Your task to perform on an android device: check the backup settings in the google photos Image 0: 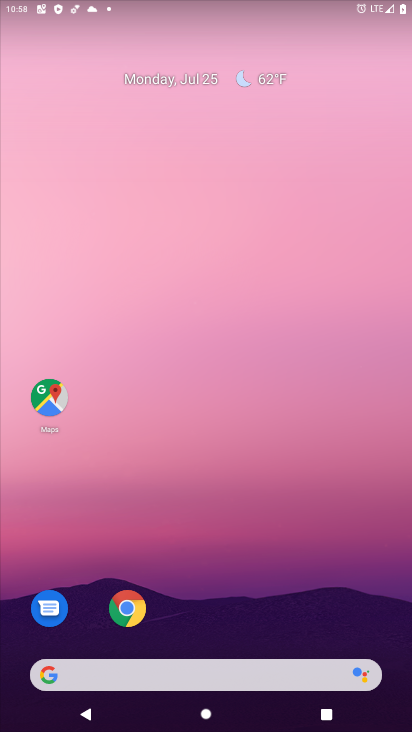
Step 0: click (222, 32)
Your task to perform on an android device: check the backup settings in the google photos Image 1: 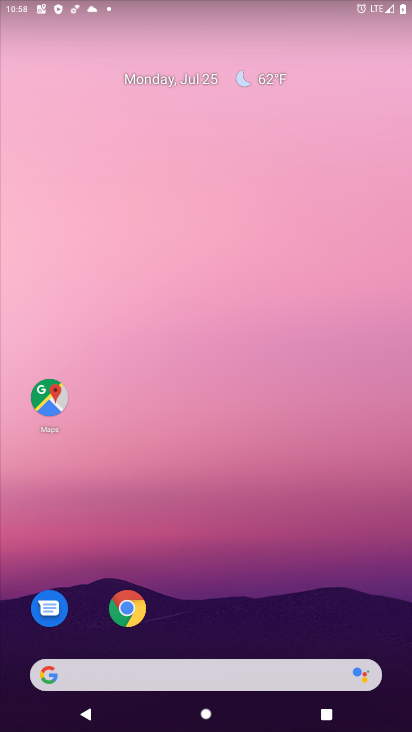
Step 1: drag from (232, 603) to (63, 14)
Your task to perform on an android device: check the backup settings in the google photos Image 2: 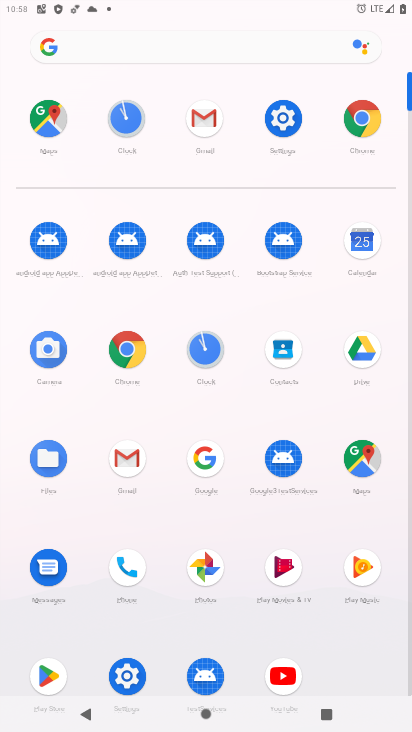
Step 2: click (202, 579)
Your task to perform on an android device: check the backup settings in the google photos Image 3: 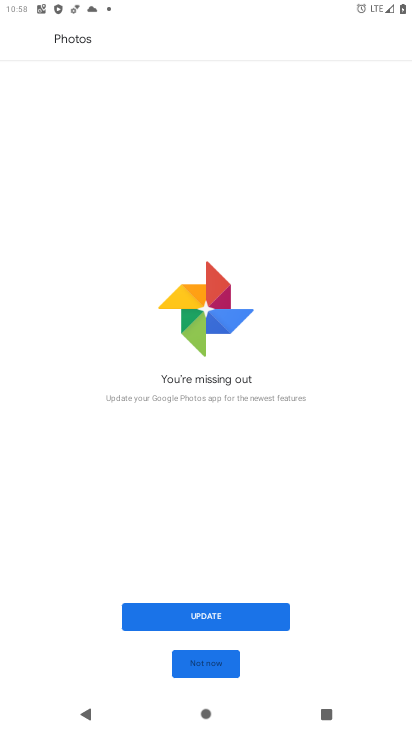
Step 3: click (204, 663)
Your task to perform on an android device: check the backup settings in the google photos Image 4: 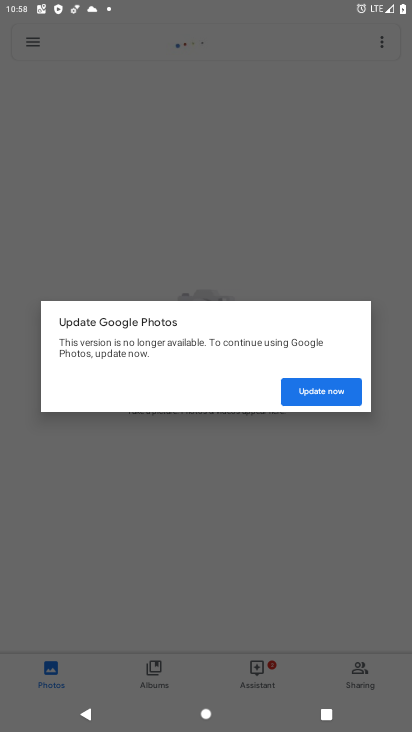
Step 4: click (304, 398)
Your task to perform on an android device: check the backup settings in the google photos Image 5: 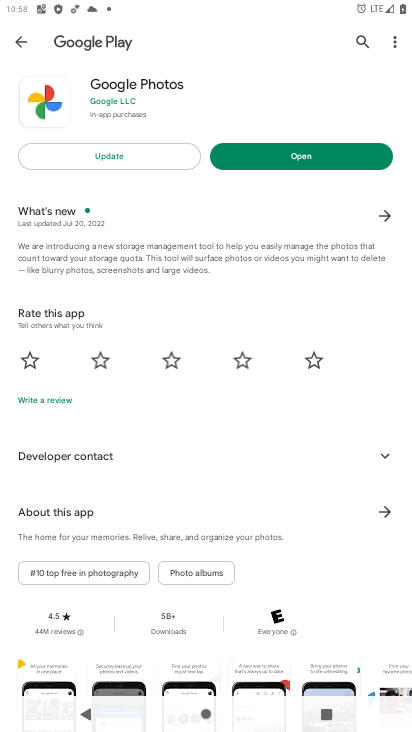
Step 5: click (305, 160)
Your task to perform on an android device: check the backup settings in the google photos Image 6: 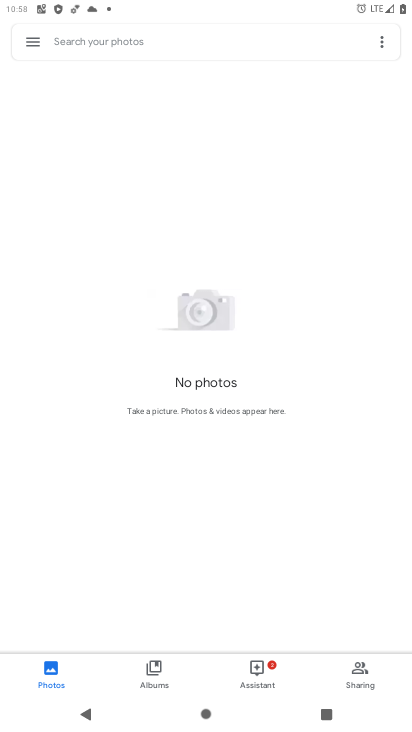
Step 6: click (30, 47)
Your task to perform on an android device: check the backup settings in the google photos Image 7: 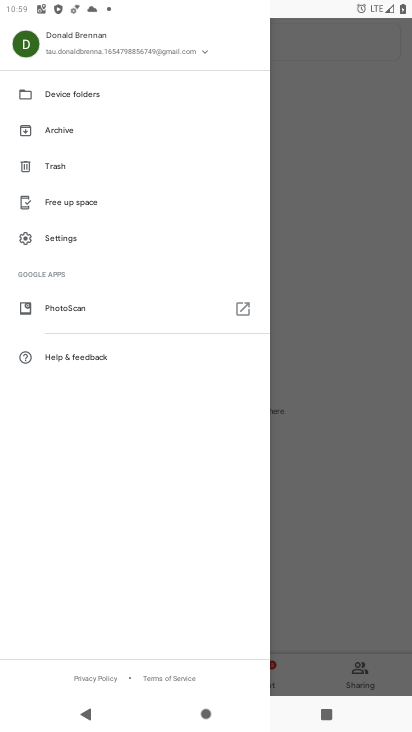
Step 7: click (60, 237)
Your task to perform on an android device: check the backup settings in the google photos Image 8: 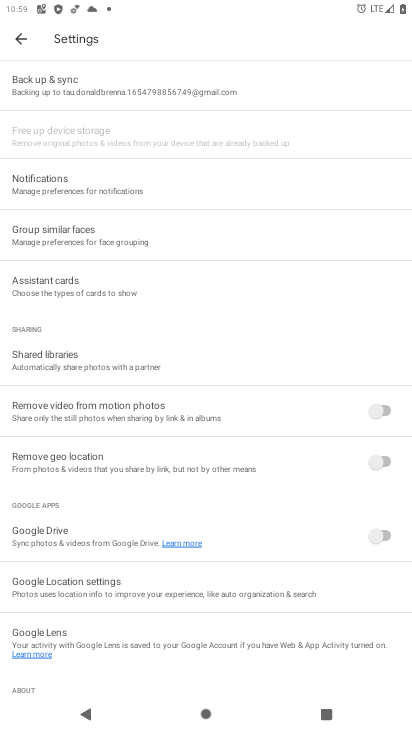
Step 8: click (97, 86)
Your task to perform on an android device: check the backup settings in the google photos Image 9: 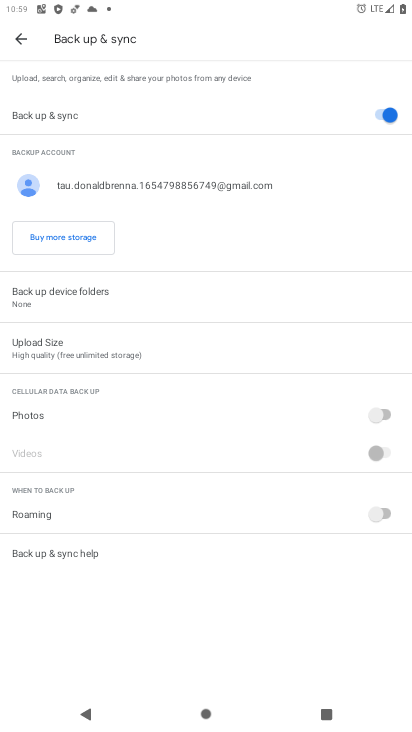
Step 9: task complete